Your task to perform on an android device: open app "Venmo" (install if not already installed) Image 0: 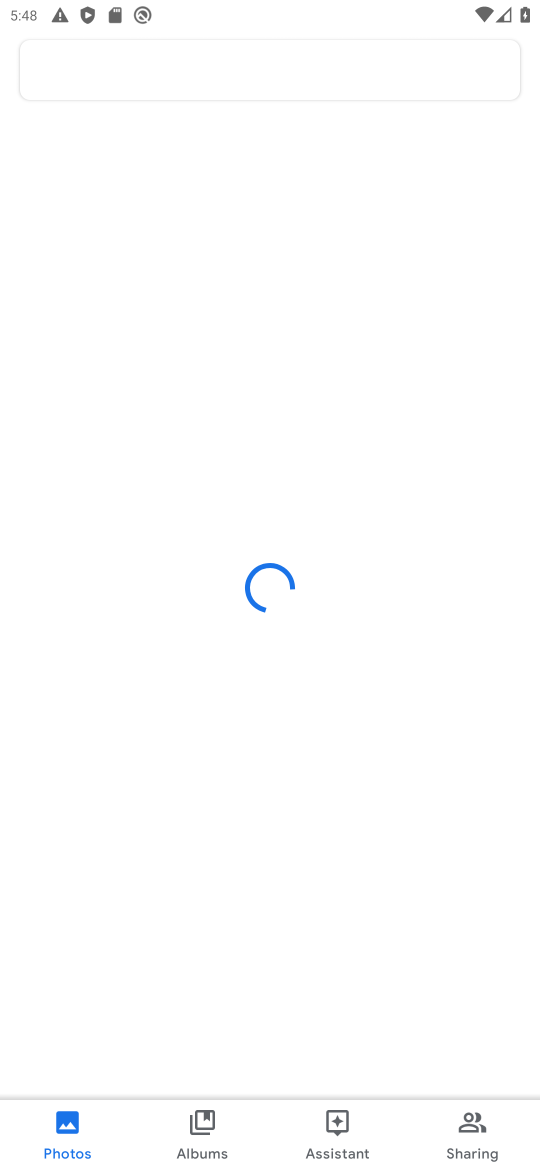
Step 0: press back button
Your task to perform on an android device: open app "Venmo" (install if not already installed) Image 1: 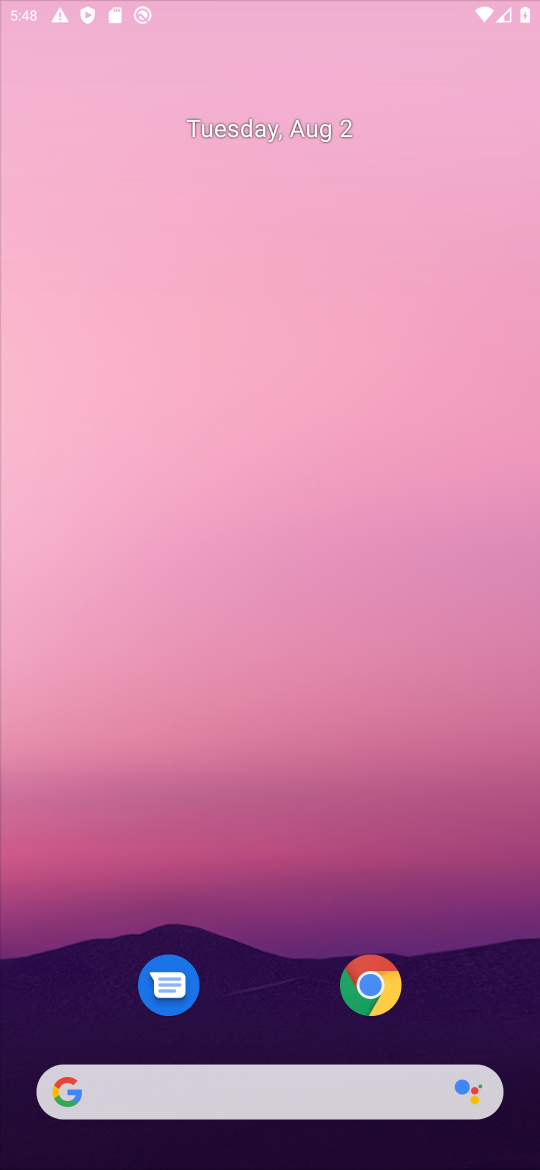
Step 1: press home button
Your task to perform on an android device: open app "Venmo" (install if not already installed) Image 2: 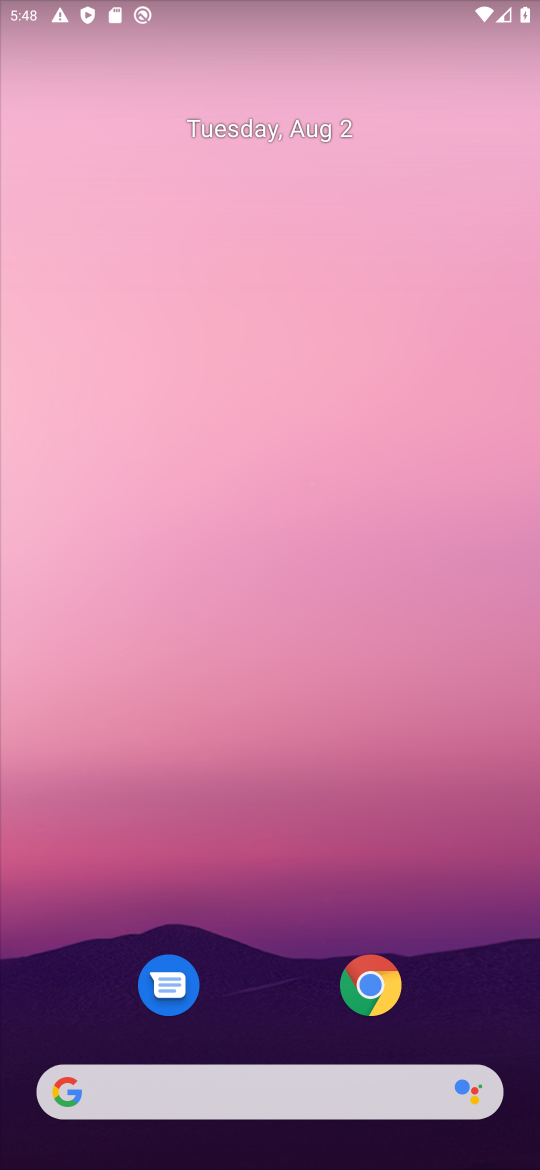
Step 2: click (217, 342)
Your task to perform on an android device: open app "Venmo" (install if not already installed) Image 3: 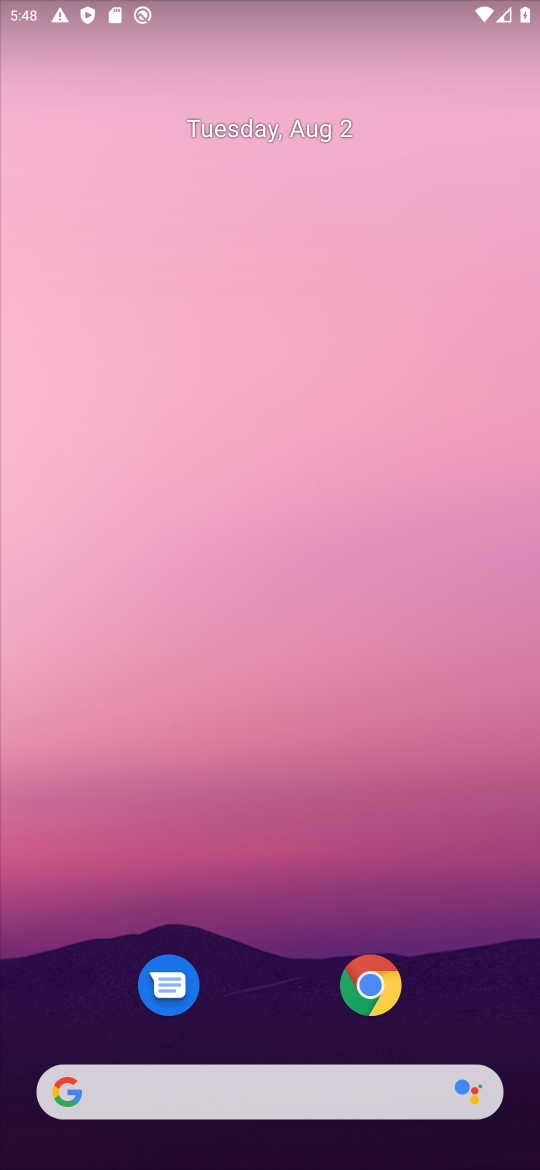
Step 3: drag from (273, 939) to (278, 377)
Your task to perform on an android device: open app "Venmo" (install if not already installed) Image 4: 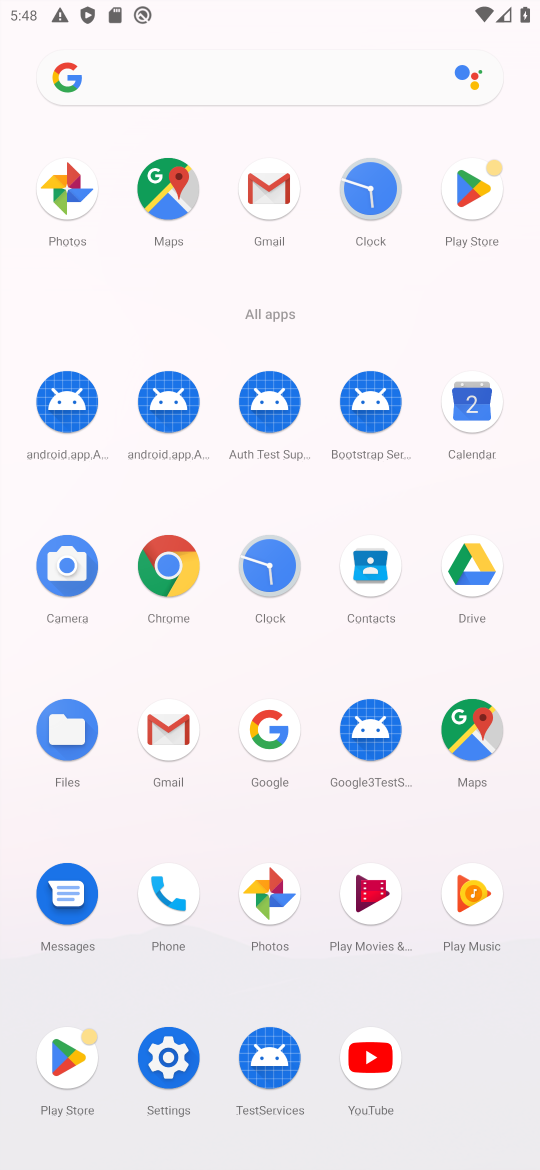
Step 4: click (450, 208)
Your task to perform on an android device: open app "Venmo" (install if not already installed) Image 5: 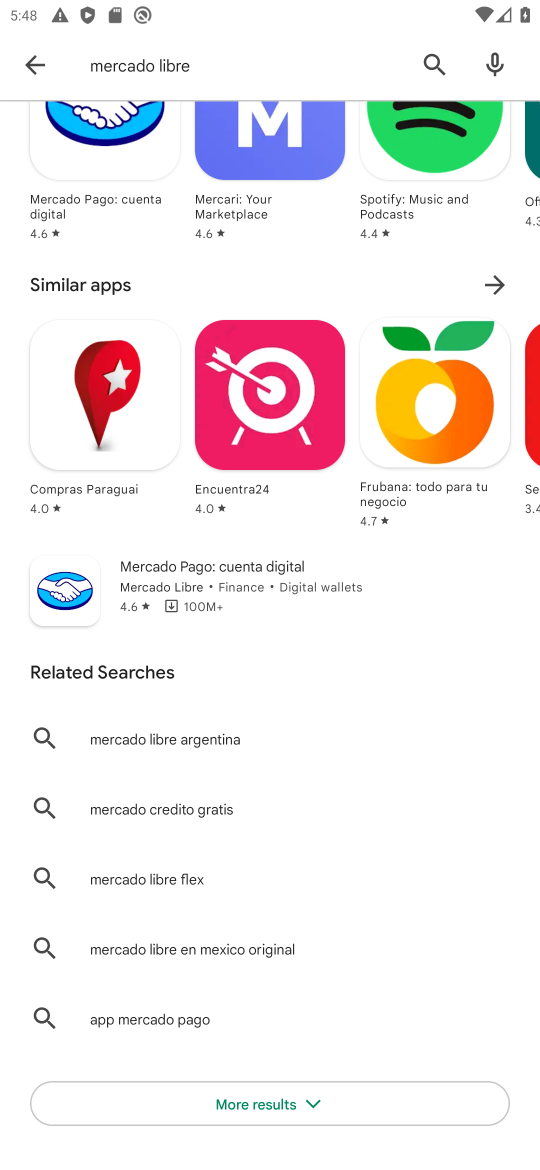
Step 5: click (437, 73)
Your task to perform on an android device: open app "Venmo" (install if not already installed) Image 6: 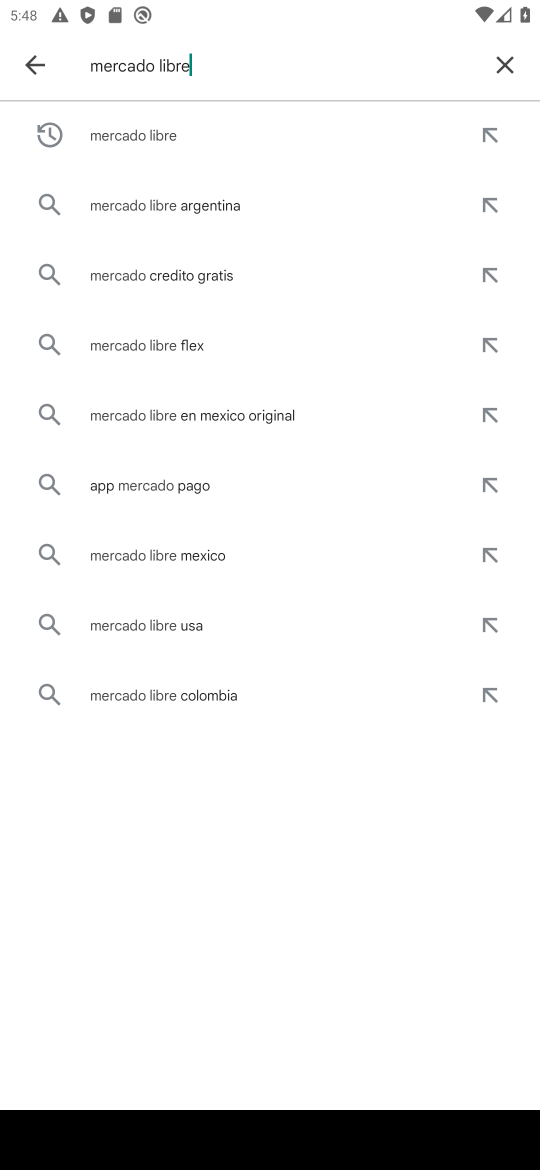
Step 6: click (486, 66)
Your task to perform on an android device: open app "Venmo" (install if not already installed) Image 7: 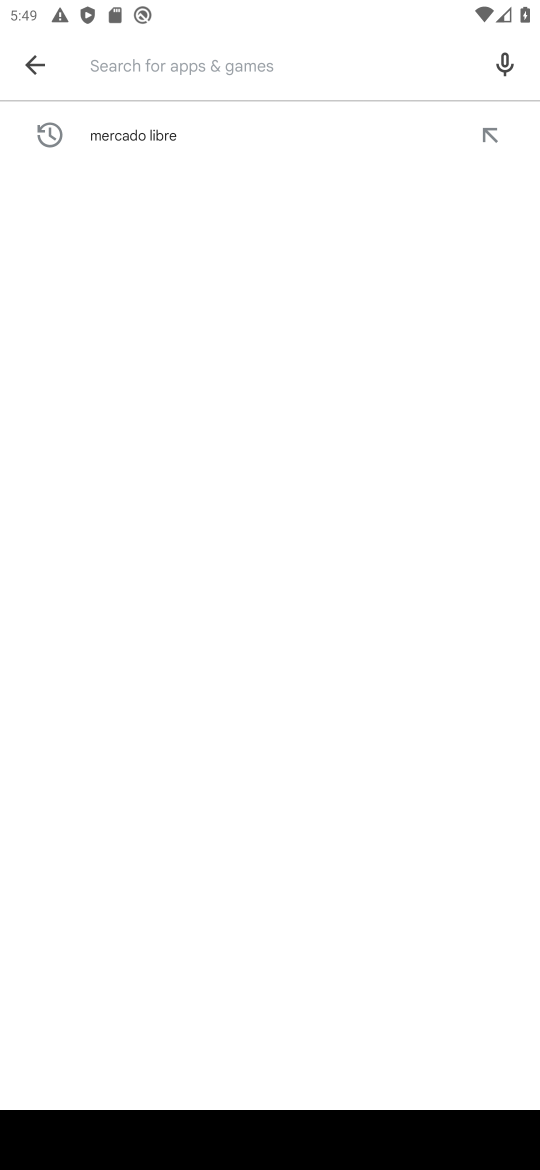
Step 7: type "Venmo"
Your task to perform on an android device: open app "Venmo" (install if not already installed) Image 8: 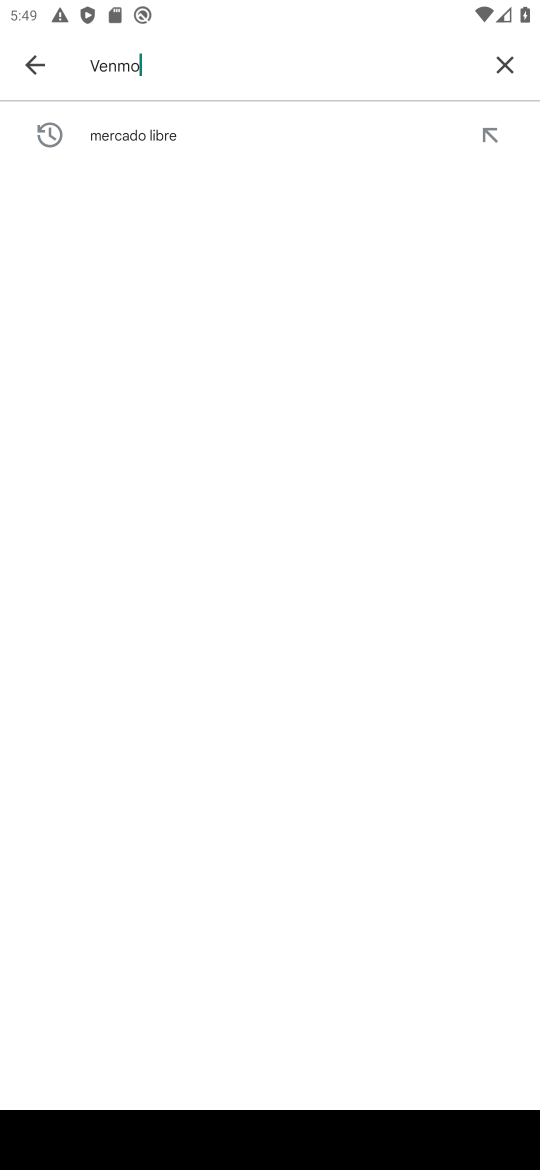
Step 8: type ""
Your task to perform on an android device: open app "Venmo" (install if not already installed) Image 9: 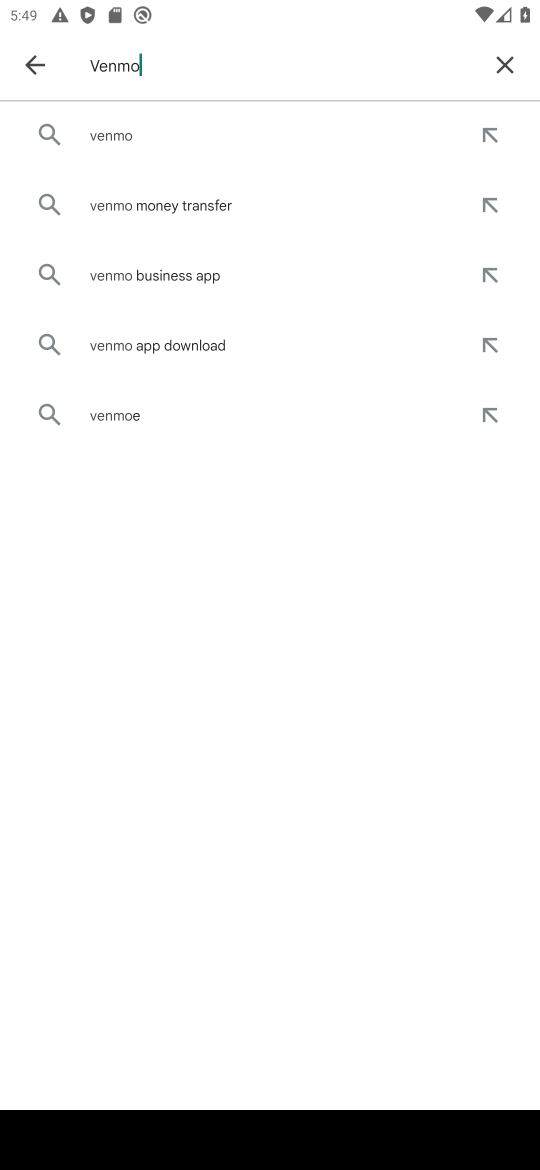
Step 9: click (108, 150)
Your task to perform on an android device: open app "Venmo" (install if not already installed) Image 10: 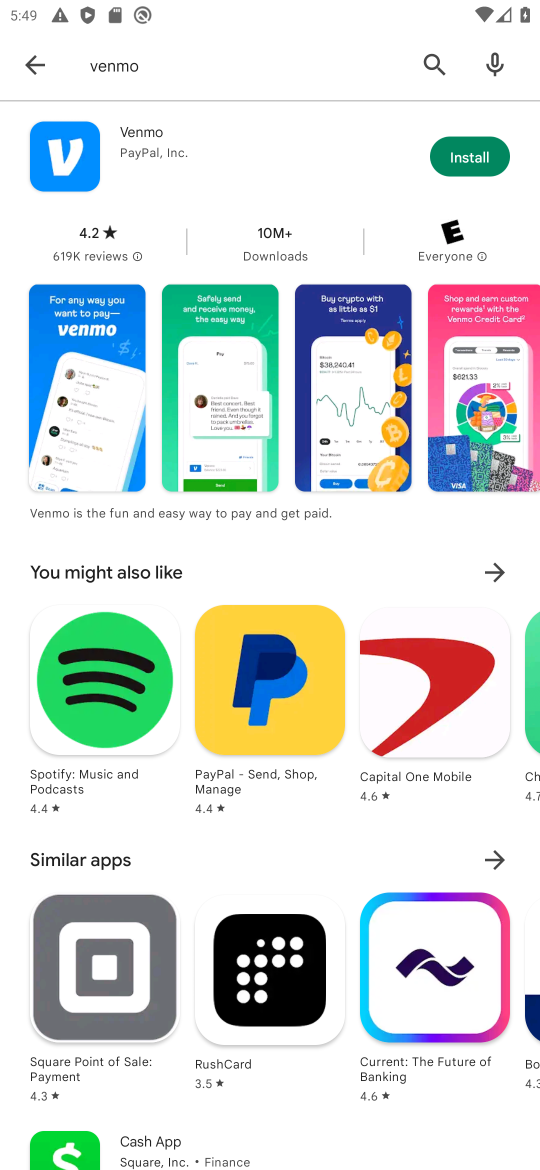
Step 10: click (473, 150)
Your task to perform on an android device: open app "Venmo" (install if not already installed) Image 11: 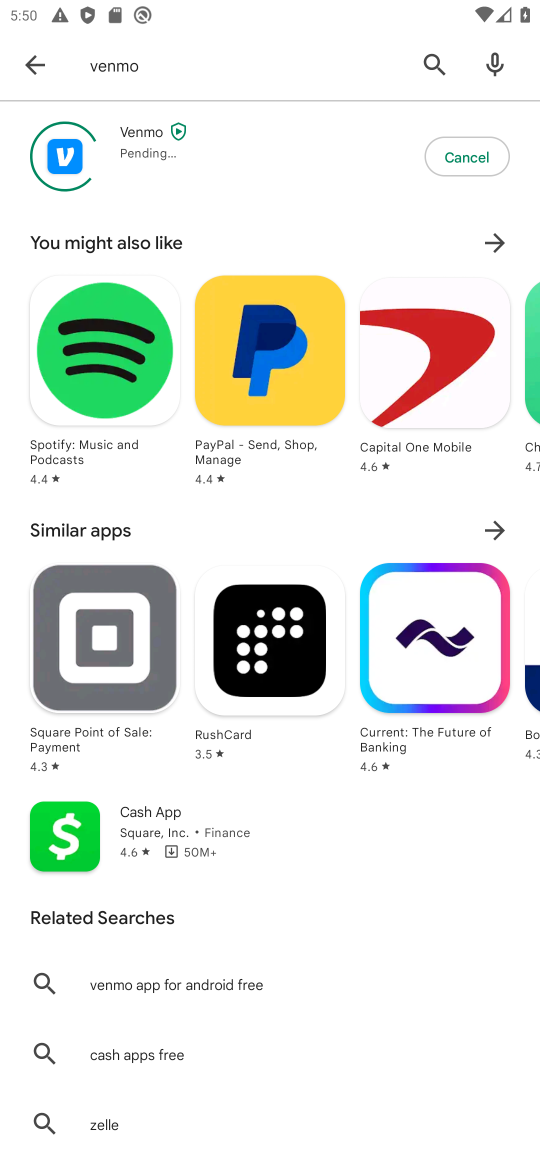
Step 11: task complete